Your task to perform on an android device: What's the news in Argentina? Image 0: 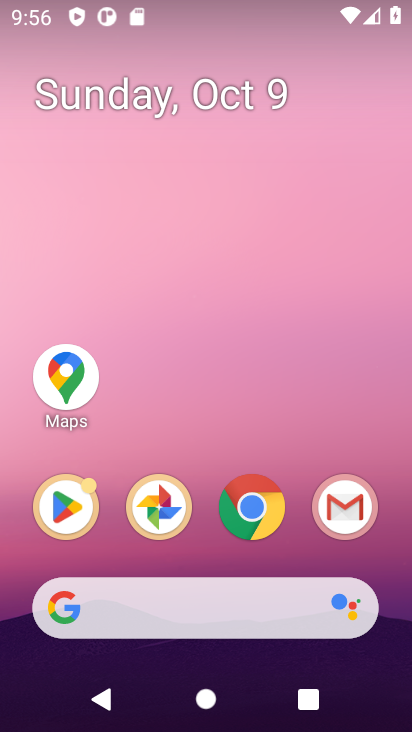
Step 0: drag from (302, 561) to (310, 125)
Your task to perform on an android device: What's the news in Argentina? Image 1: 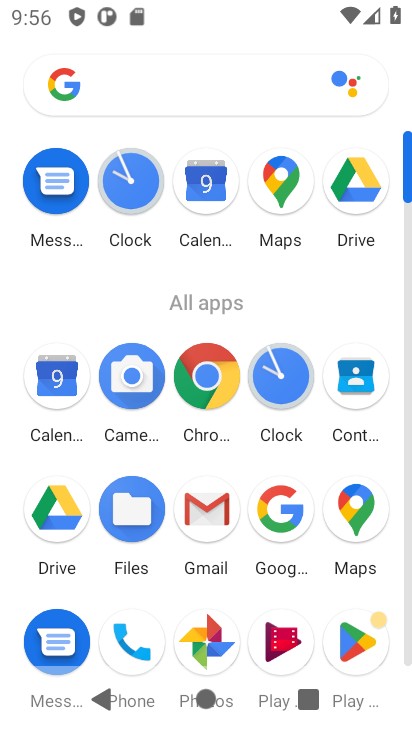
Step 1: click (212, 374)
Your task to perform on an android device: What's the news in Argentina? Image 2: 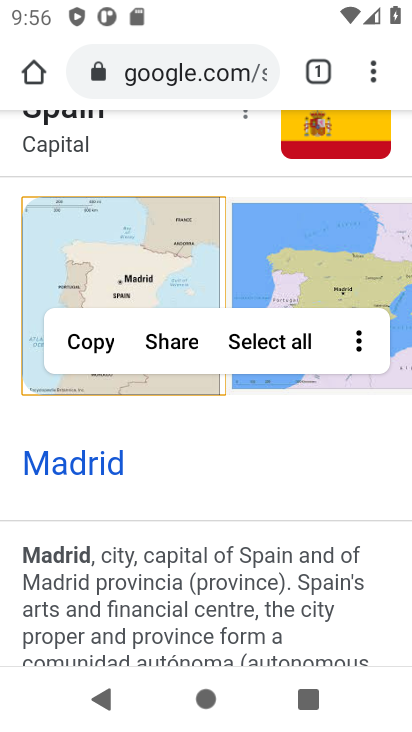
Step 2: click (161, 74)
Your task to perform on an android device: What's the news in Argentina? Image 3: 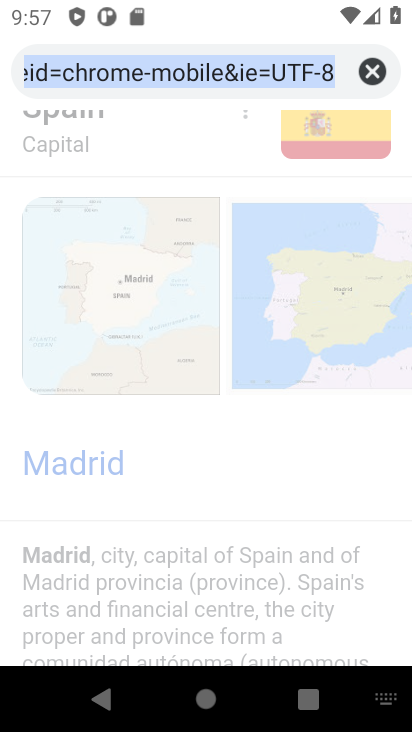
Step 3: type "What's the news in Argentina ?"
Your task to perform on an android device: What's the news in Argentina? Image 4: 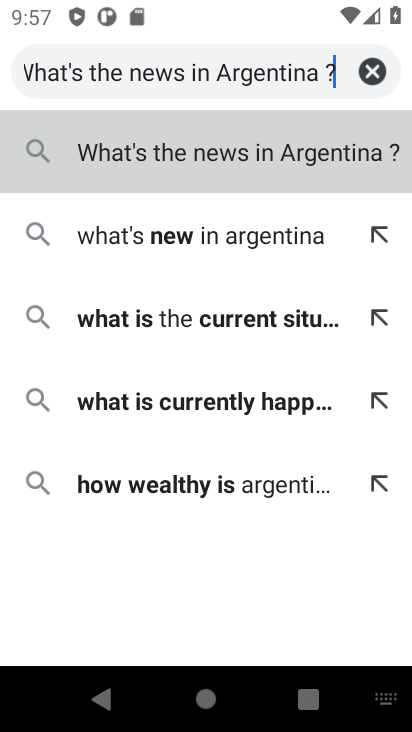
Step 4: press enter
Your task to perform on an android device: What's the news in Argentina? Image 5: 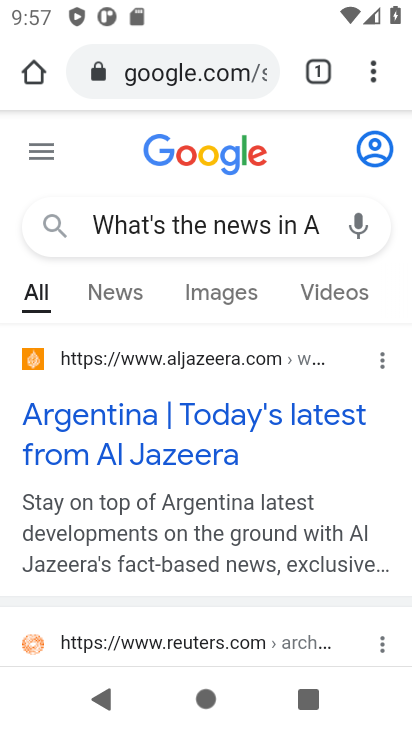
Step 5: click (205, 440)
Your task to perform on an android device: What's the news in Argentina? Image 6: 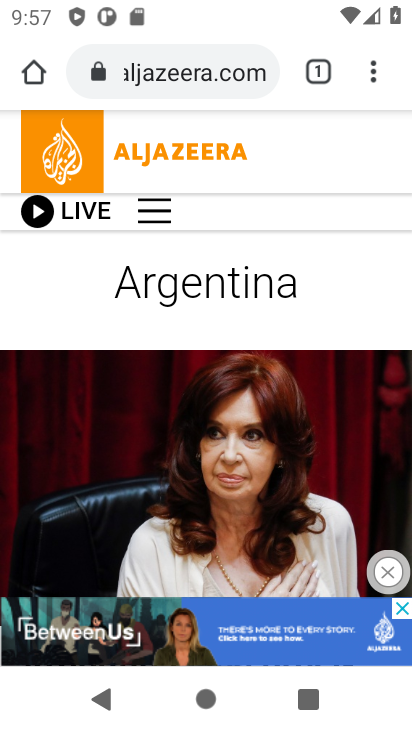
Step 6: task complete